Your task to perform on an android device: Open the calendar and show me this week's events? Image 0: 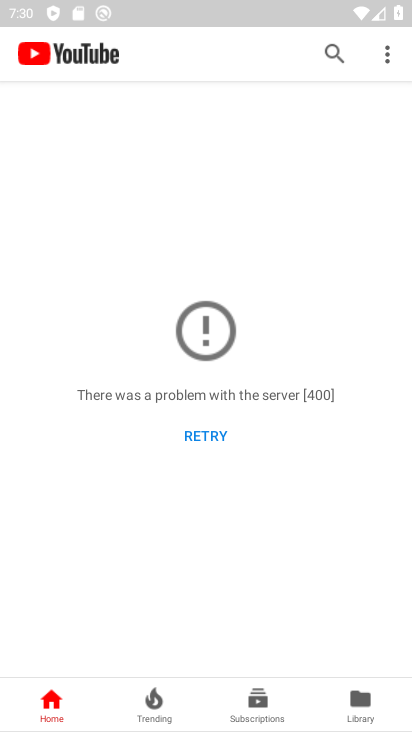
Step 0: press home button
Your task to perform on an android device: Open the calendar and show me this week's events? Image 1: 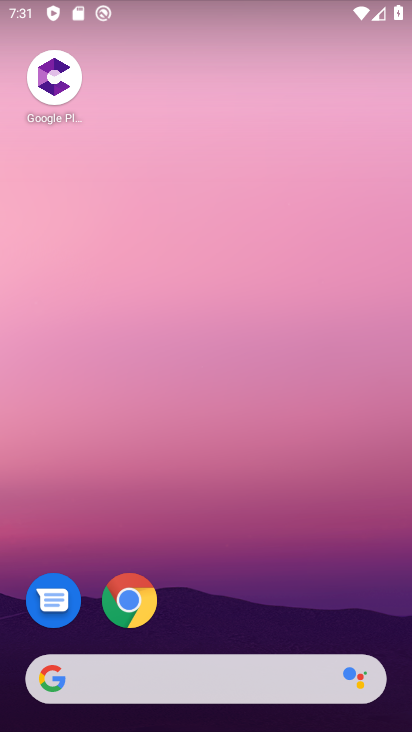
Step 1: drag from (191, 617) to (375, 44)
Your task to perform on an android device: Open the calendar and show me this week's events? Image 2: 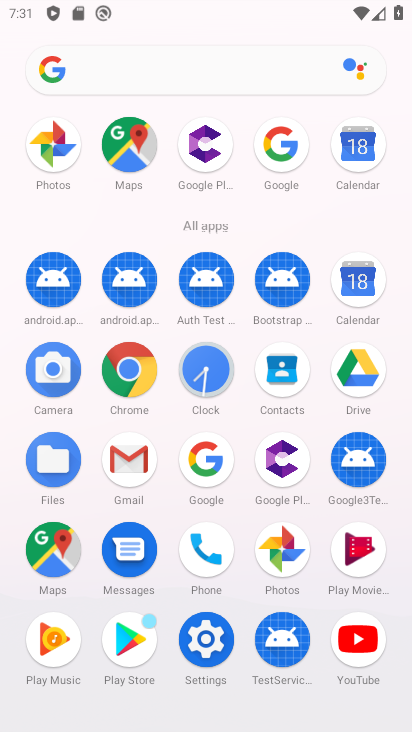
Step 2: click (365, 173)
Your task to perform on an android device: Open the calendar and show me this week's events? Image 3: 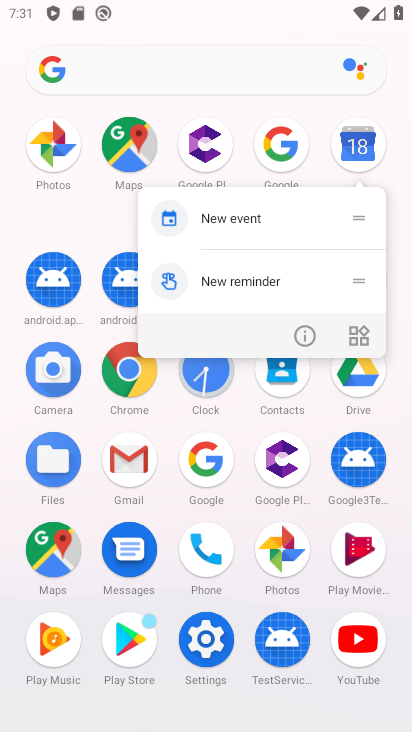
Step 3: click (360, 161)
Your task to perform on an android device: Open the calendar and show me this week's events? Image 4: 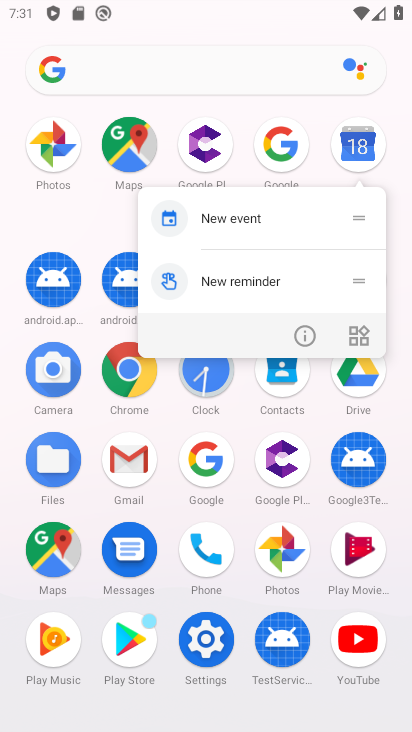
Step 4: click (356, 170)
Your task to perform on an android device: Open the calendar and show me this week's events? Image 5: 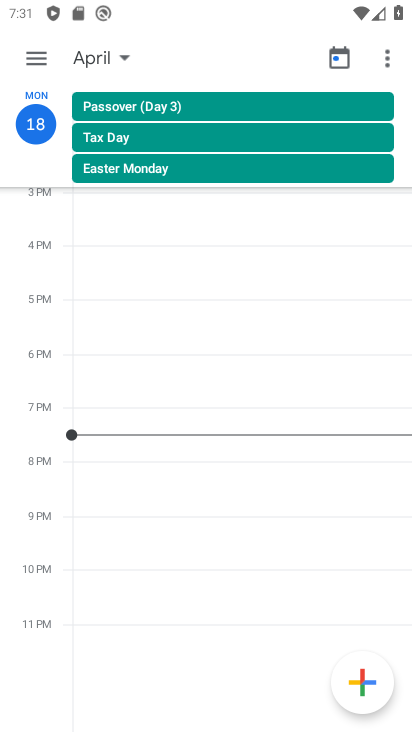
Step 5: click (36, 48)
Your task to perform on an android device: Open the calendar and show me this week's events? Image 6: 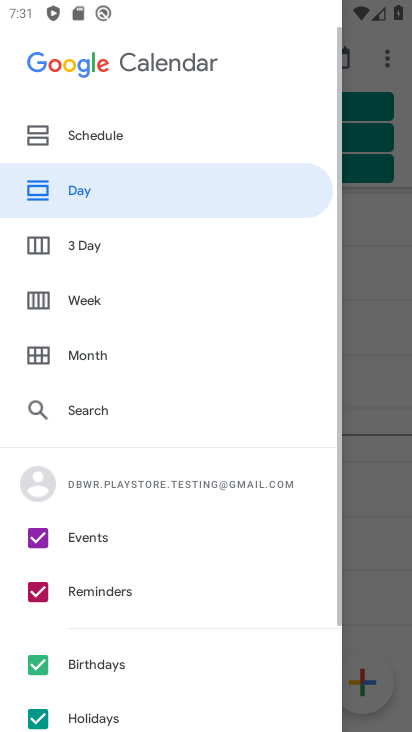
Step 6: click (92, 280)
Your task to perform on an android device: Open the calendar and show me this week's events? Image 7: 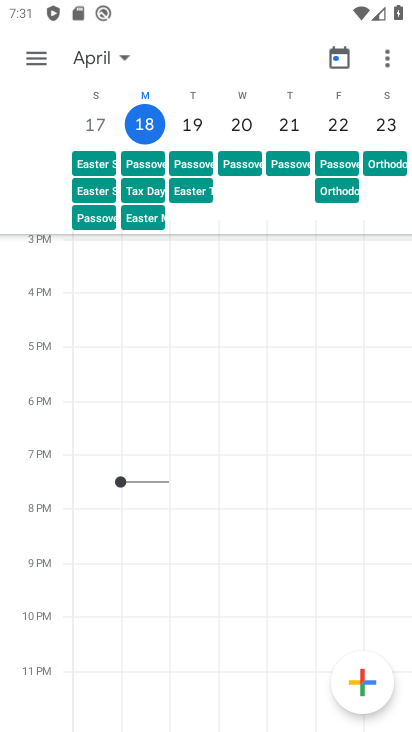
Step 7: click (199, 167)
Your task to perform on an android device: Open the calendar and show me this week's events? Image 8: 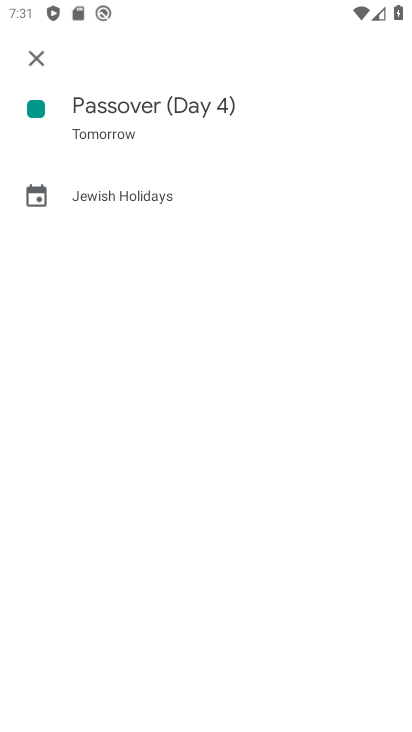
Step 8: click (39, 53)
Your task to perform on an android device: Open the calendar and show me this week's events? Image 9: 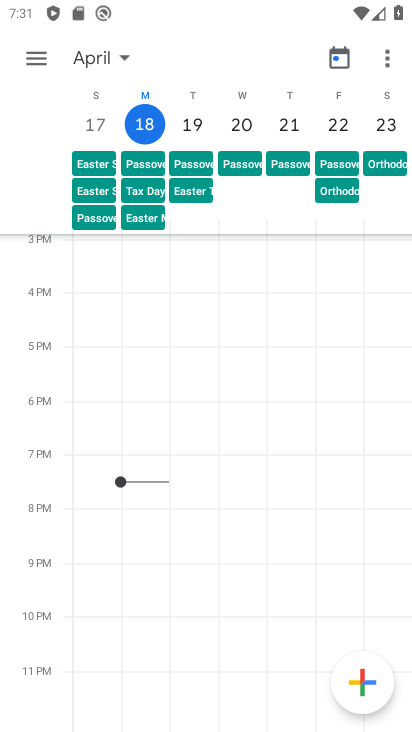
Step 9: click (241, 125)
Your task to perform on an android device: Open the calendar and show me this week's events? Image 10: 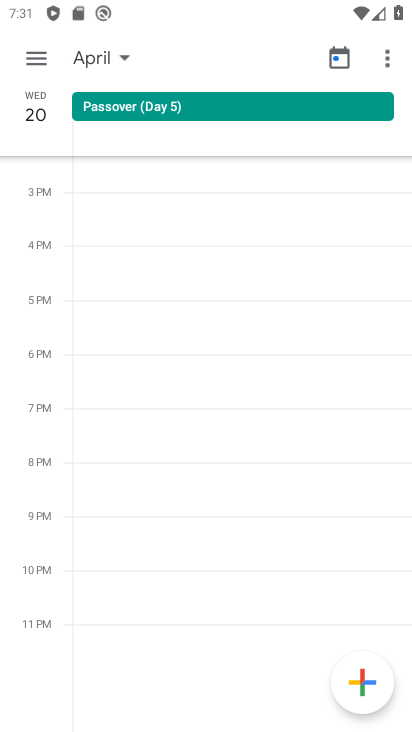
Step 10: click (47, 63)
Your task to perform on an android device: Open the calendar and show me this week's events? Image 11: 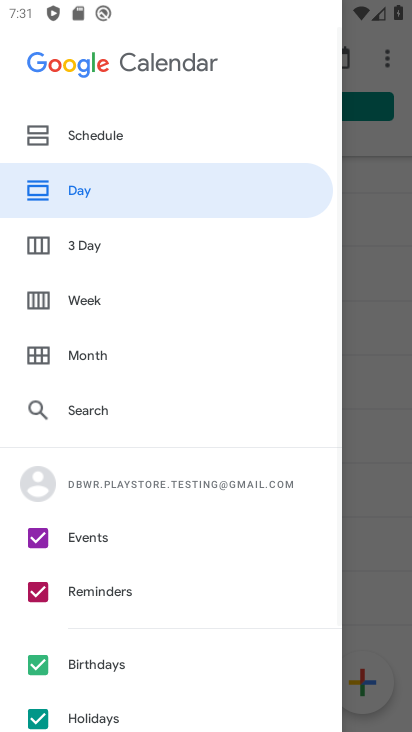
Step 11: click (105, 299)
Your task to perform on an android device: Open the calendar and show me this week's events? Image 12: 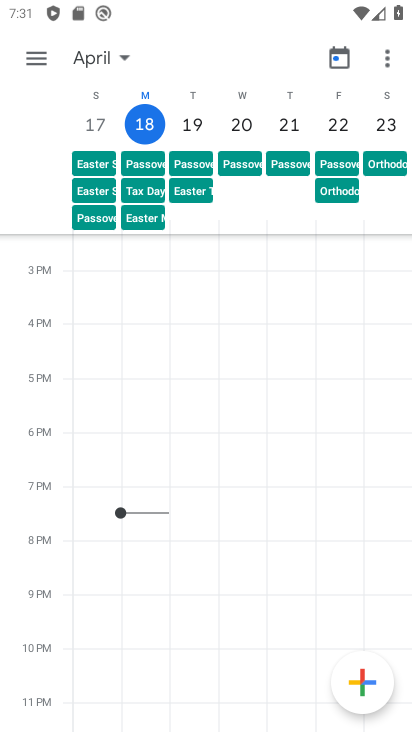
Step 12: click (45, 51)
Your task to perform on an android device: Open the calendar and show me this week's events? Image 13: 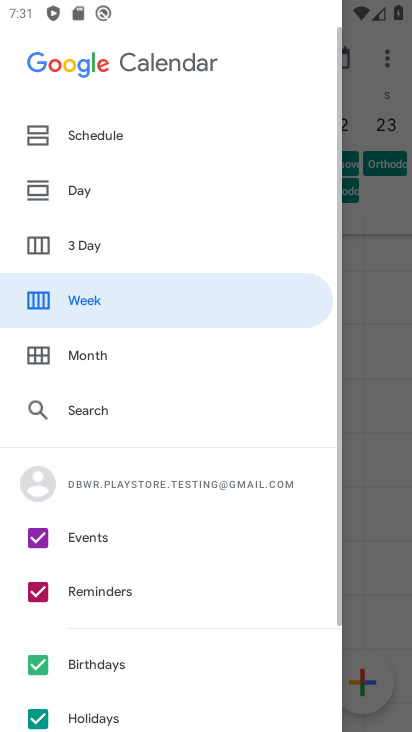
Step 13: click (101, 536)
Your task to perform on an android device: Open the calendar and show me this week's events? Image 14: 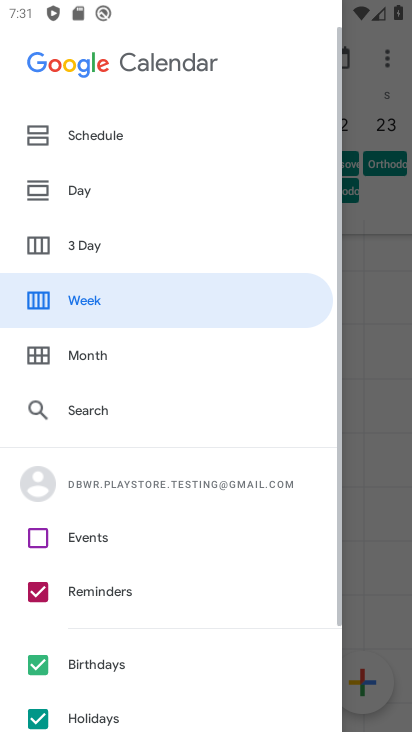
Step 14: click (101, 535)
Your task to perform on an android device: Open the calendar and show me this week's events? Image 15: 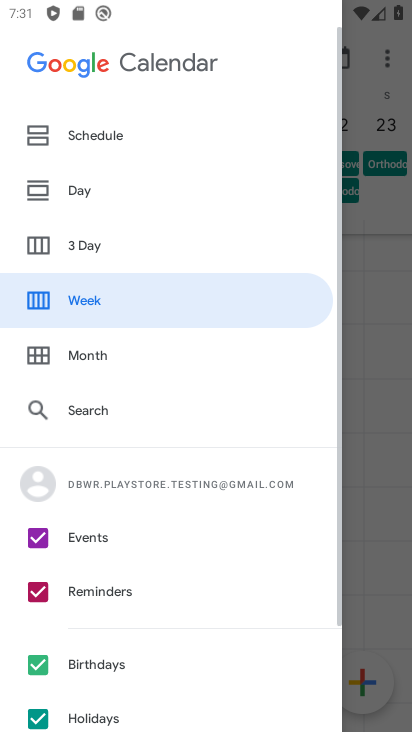
Step 15: click (393, 451)
Your task to perform on an android device: Open the calendar and show me this week's events? Image 16: 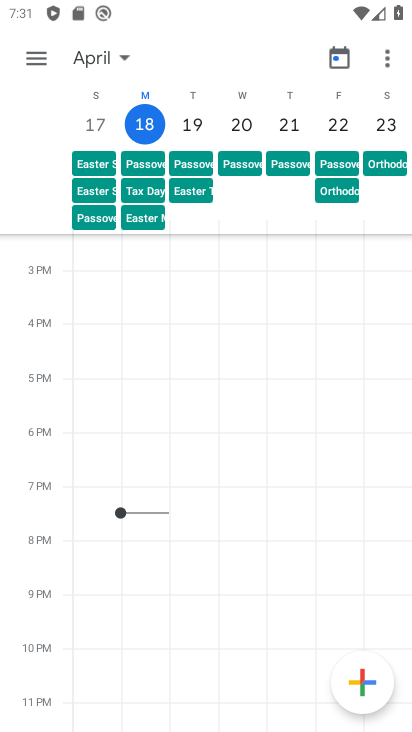
Step 16: task complete